Your task to perform on an android device: turn on translation in the chrome app Image 0: 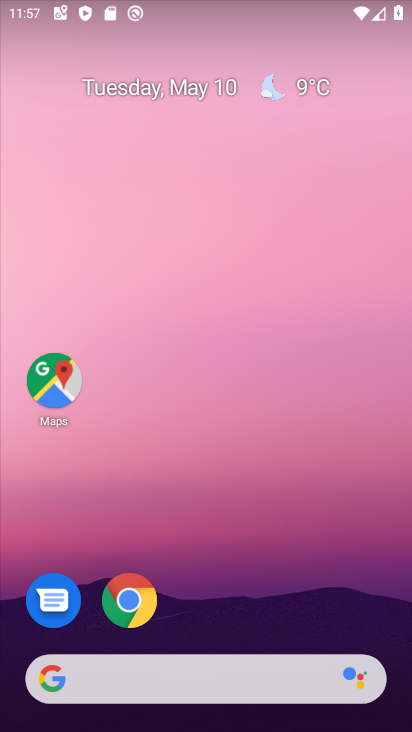
Step 0: click (116, 598)
Your task to perform on an android device: turn on translation in the chrome app Image 1: 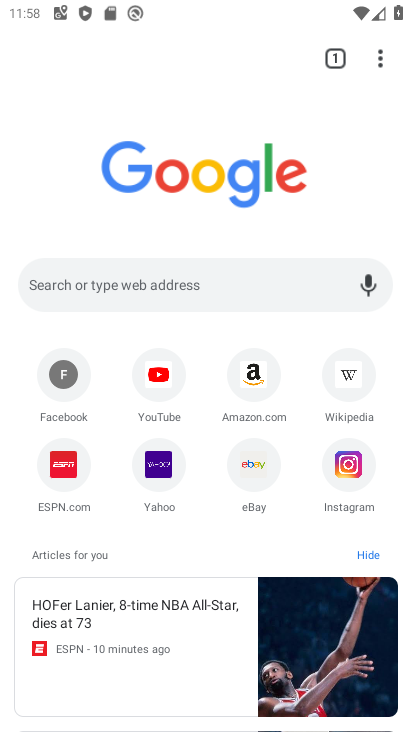
Step 1: click (367, 56)
Your task to perform on an android device: turn on translation in the chrome app Image 2: 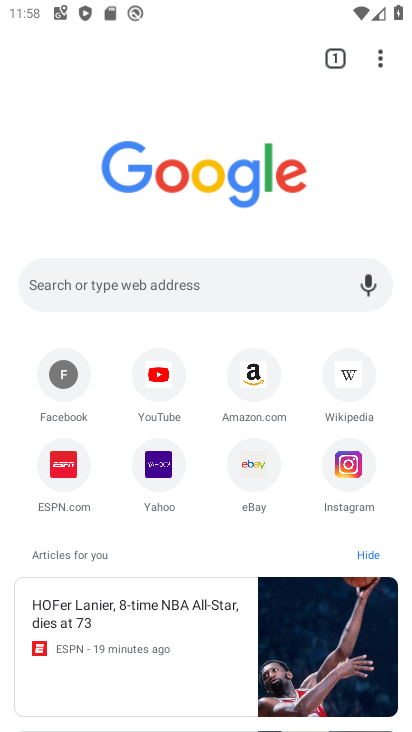
Step 2: click (382, 54)
Your task to perform on an android device: turn on translation in the chrome app Image 3: 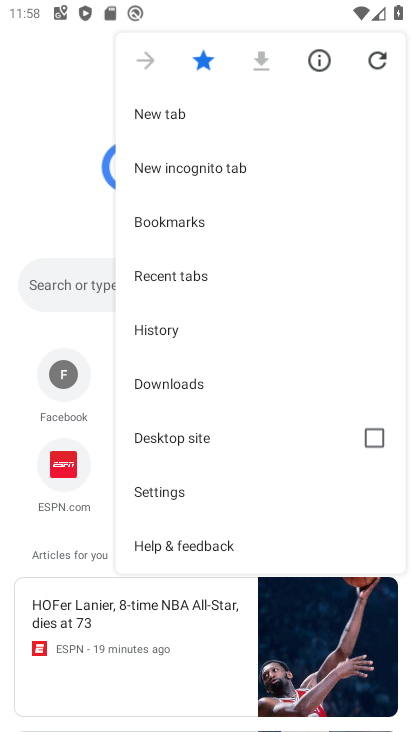
Step 3: click (217, 495)
Your task to perform on an android device: turn on translation in the chrome app Image 4: 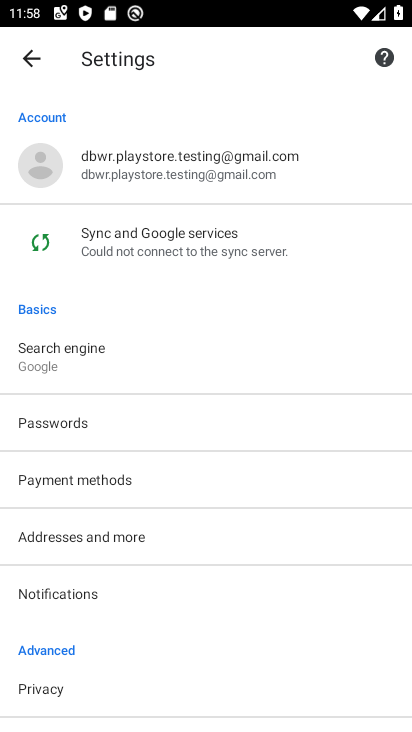
Step 4: drag from (342, 434) to (195, 596)
Your task to perform on an android device: turn on translation in the chrome app Image 5: 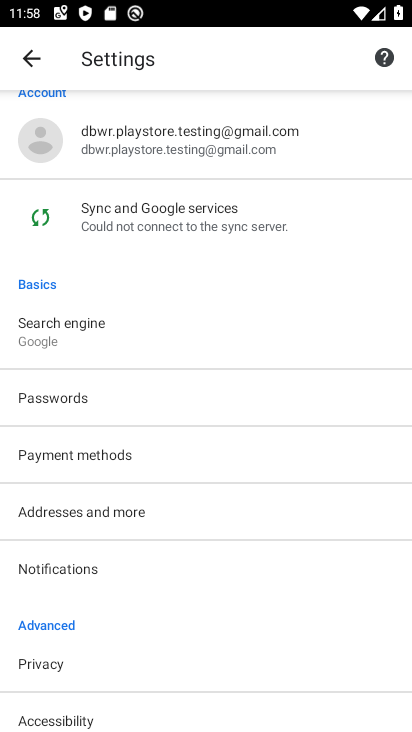
Step 5: drag from (159, 519) to (244, 1)
Your task to perform on an android device: turn on translation in the chrome app Image 6: 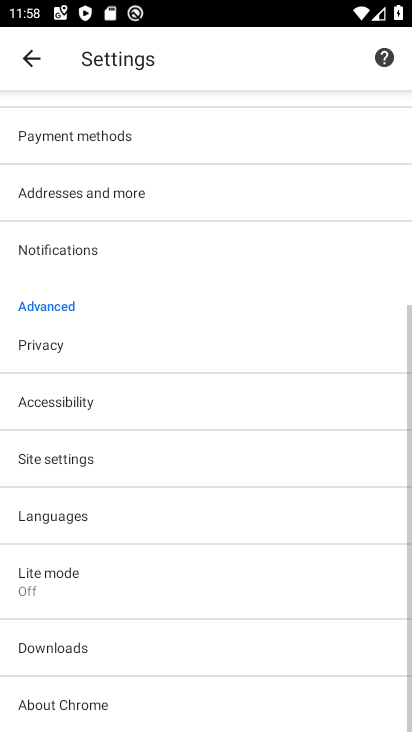
Step 6: click (112, 511)
Your task to perform on an android device: turn on translation in the chrome app Image 7: 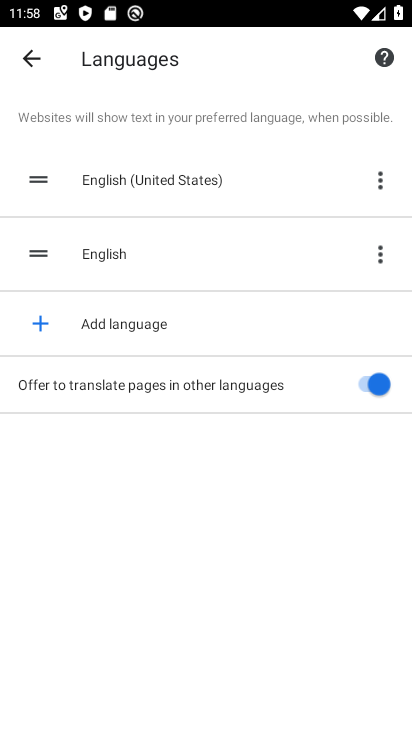
Step 7: task complete